Your task to perform on an android device: toggle priority inbox in the gmail app Image 0: 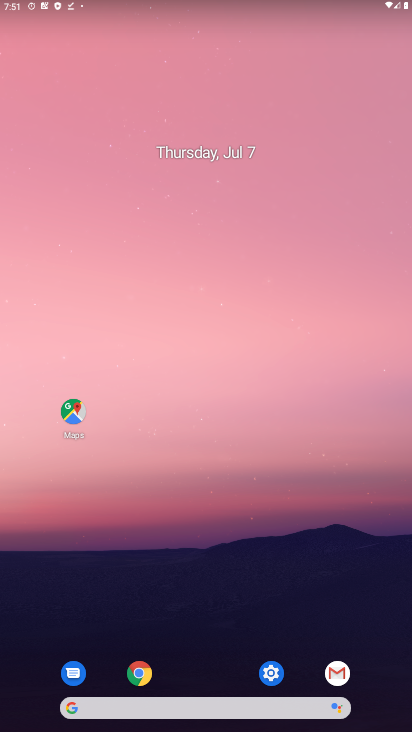
Step 0: click (335, 681)
Your task to perform on an android device: toggle priority inbox in the gmail app Image 1: 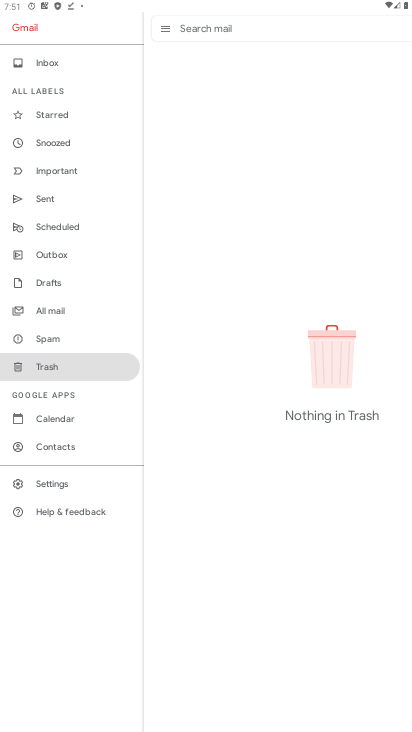
Step 1: click (61, 482)
Your task to perform on an android device: toggle priority inbox in the gmail app Image 2: 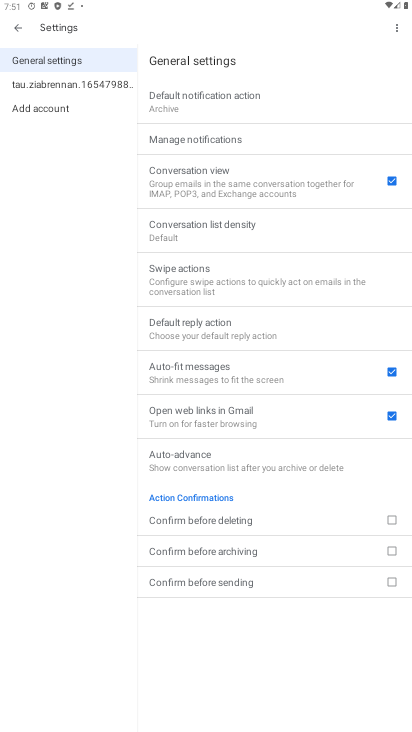
Step 2: drag from (212, 107) to (214, 270)
Your task to perform on an android device: toggle priority inbox in the gmail app Image 3: 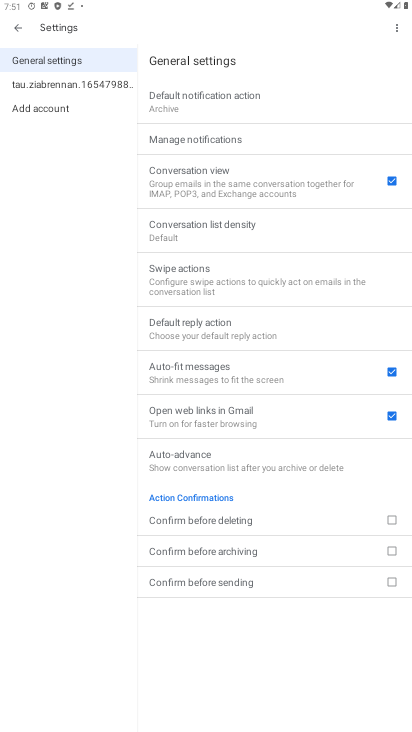
Step 3: click (35, 87)
Your task to perform on an android device: toggle priority inbox in the gmail app Image 4: 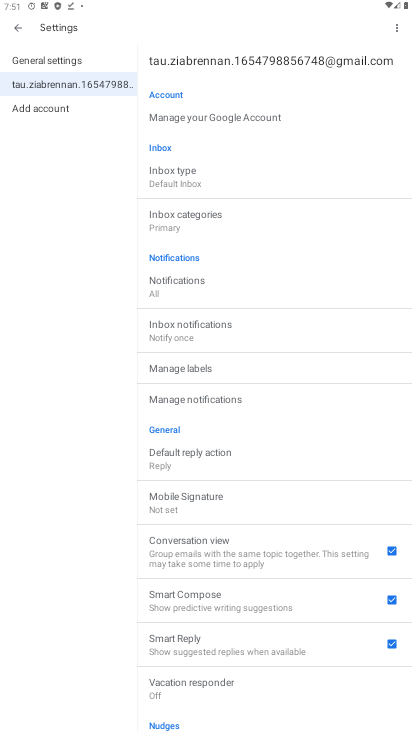
Step 4: click (180, 184)
Your task to perform on an android device: toggle priority inbox in the gmail app Image 5: 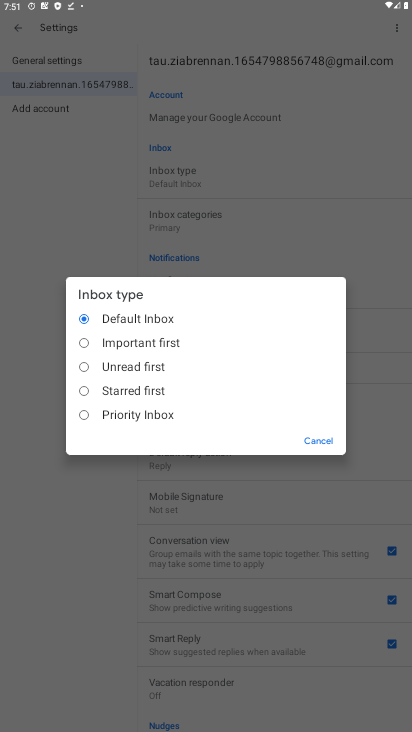
Step 5: click (137, 411)
Your task to perform on an android device: toggle priority inbox in the gmail app Image 6: 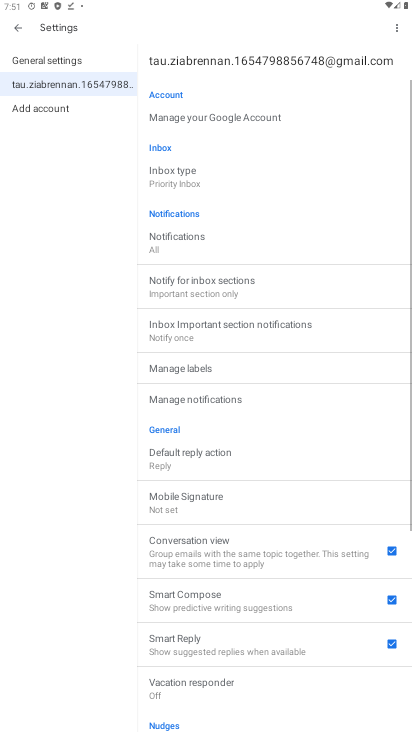
Step 6: click (192, 177)
Your task to perform on an android device: toggle priority inbox in the gmail app Image 7: 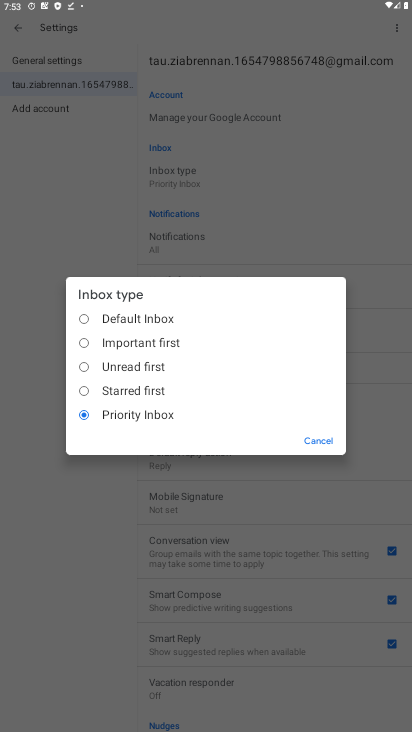
Step 7: task complete